Your task to perform on an android device: Turn on the flashlight Image 0: 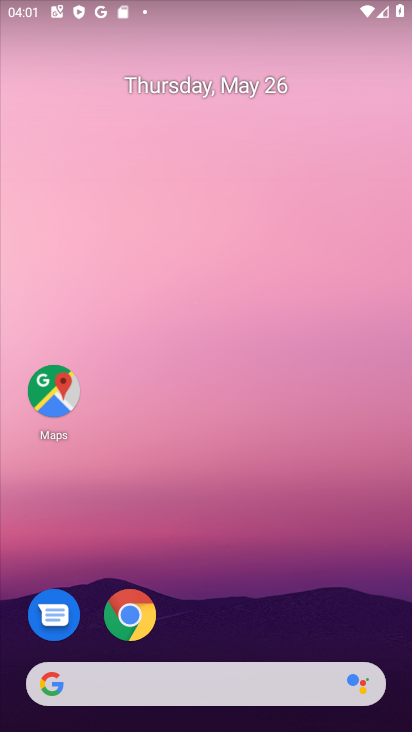
Step 0: drag from (198, 618) to (170, 41)
Your task to perform on an android device: Turn on the flashlight Image 1: 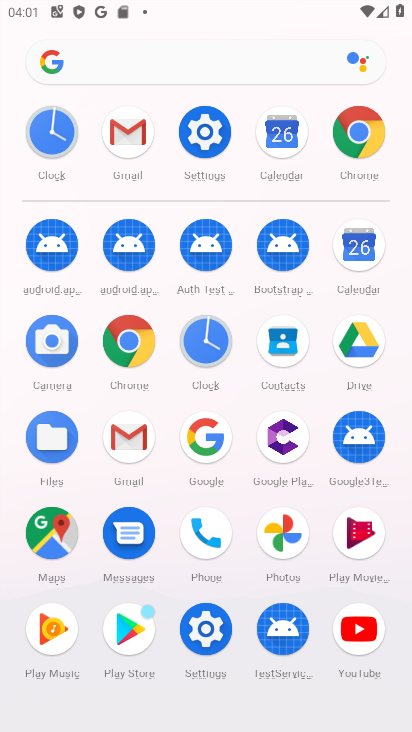
Step 1: task complete